Your task to perform on an android device: refresh tabs in the chrome app Image 0: 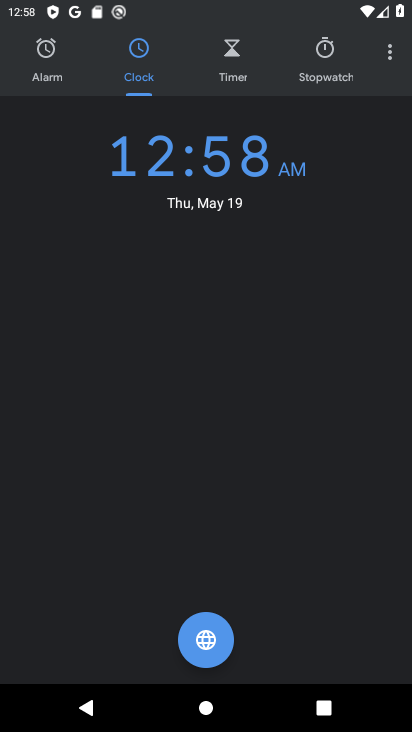
Step 0: press home button
Your task to perform on an android device: refresh tabs in the chrome app Image 1: 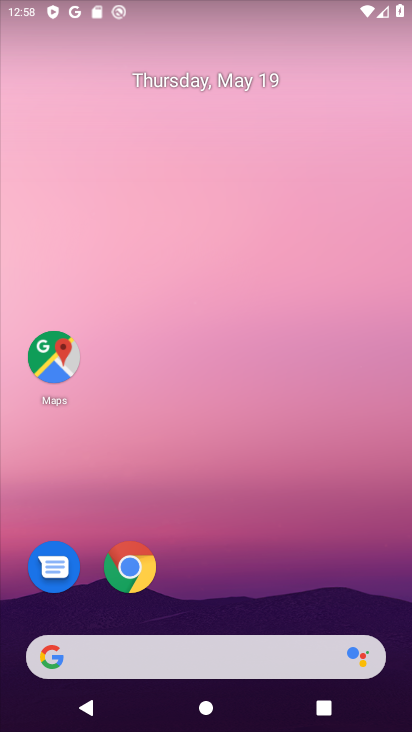
Step 1: click (131, 565)
Your task to perform on an android device: refresh tabs in the chrome app Image 2: 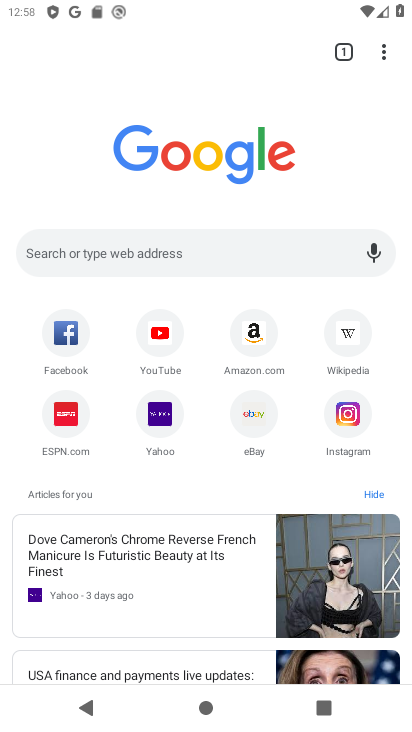
Step 2: click (387, 64)
Your task to perform on an android device: refresh tabs in the chrome app Image 3: 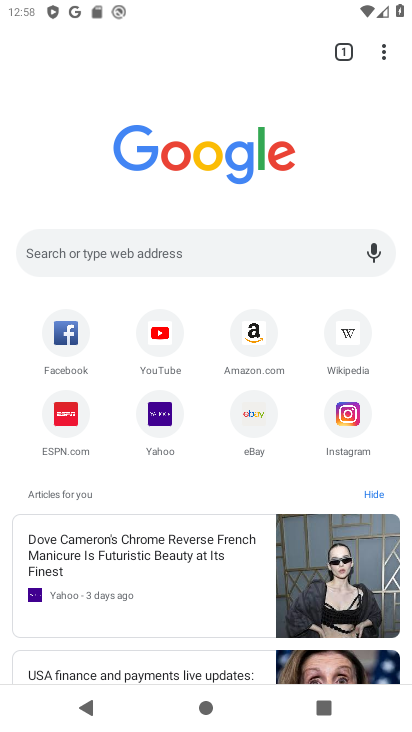
Step 3: task complete